Your task to perform on an android device: toggle airplane mode Image 0: 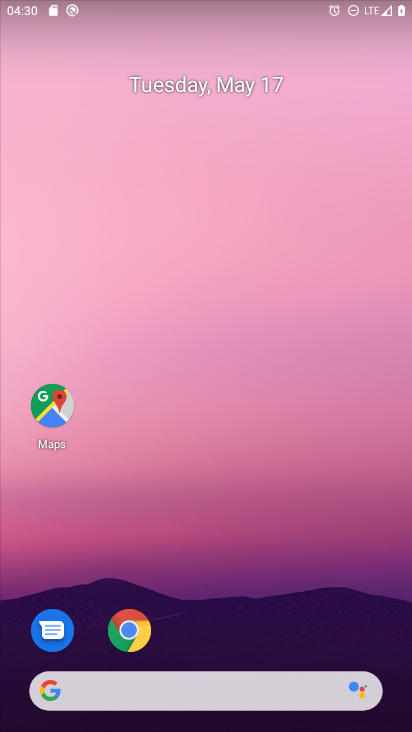
Step 0: drag from (371, 8) to (299, 536)
Your task to perform on an android device: toggle airplane mode Image 1: 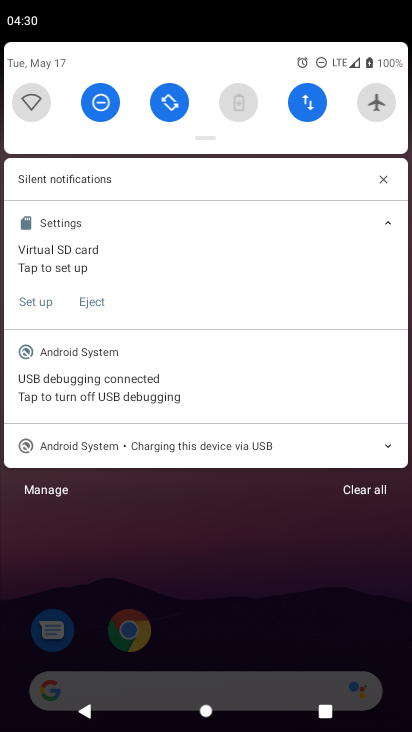
Step 1: click (372, 99)
Your task to perform on an android device: toggle airplane mode Image 2: 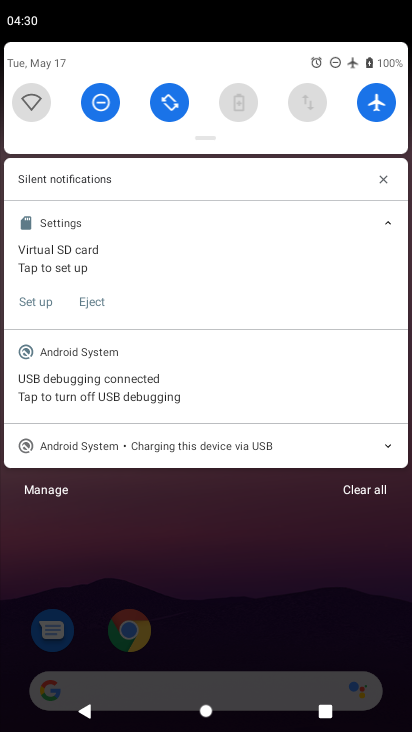
Step 2: task complete